Your task to perform on an android device: open chrome privacy settings Image 0: 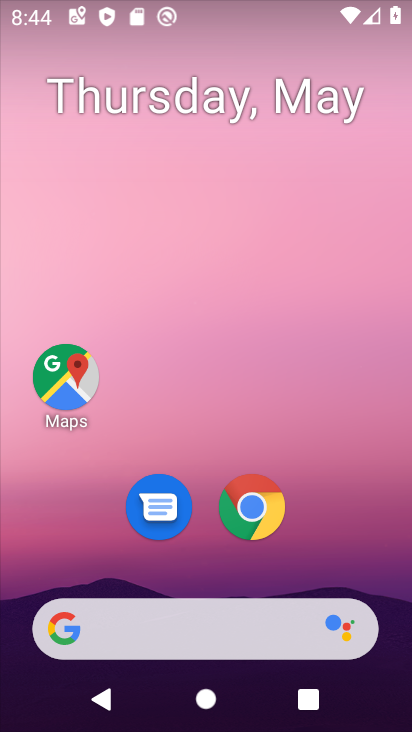
Step 0: drag from (261, 661) to (305, 343)
Your task to perform on an android device: open chrome privacy settings Image 1: 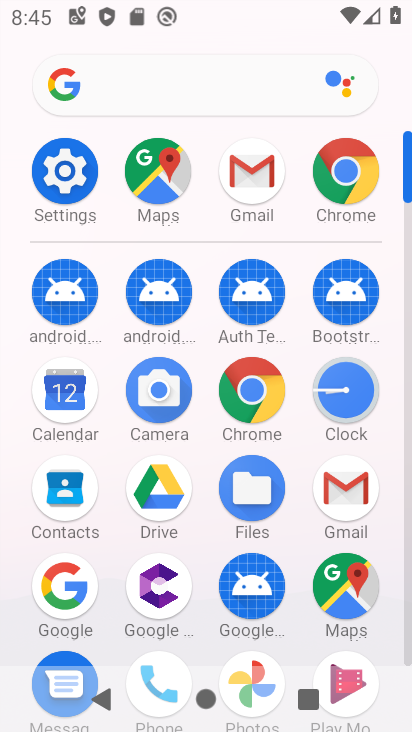
Step 1: click (337, 174)
Your task to perform on an android device: open chrome privacy settings Image 2: 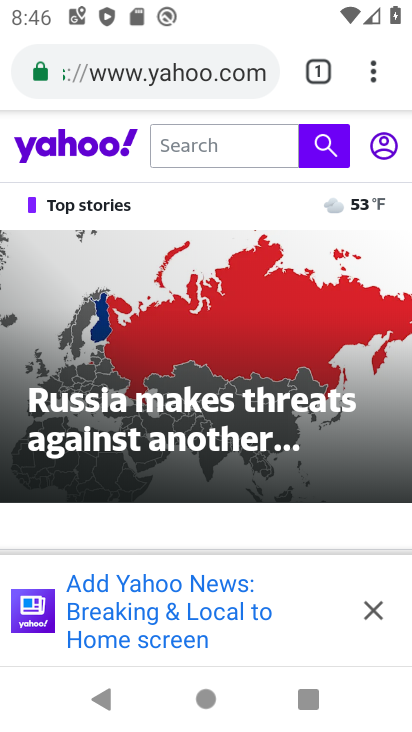
Step 2: click (362, 78)
Your task to perform on an android device: open chrome privacy settings Image 3: 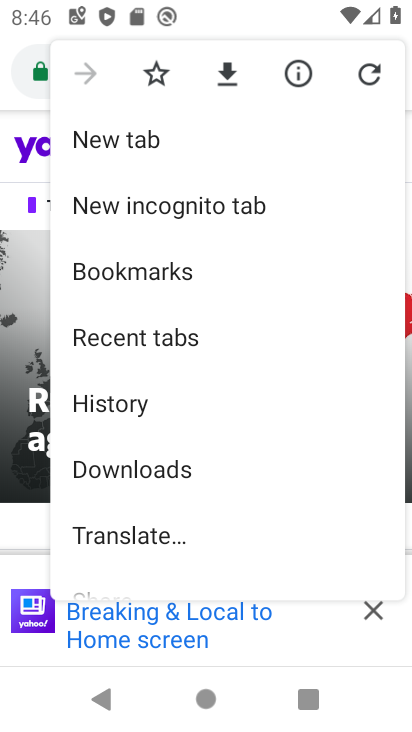
Step 3: drag from (145, 534) to (263, 314)
Your task to perform on an android device: open chrome privacy settings Image 4: 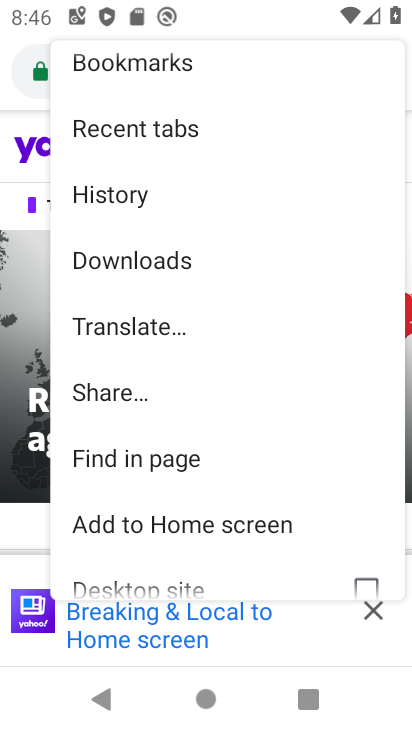
Step 4: drag from (124, 540) to (252, 356)
Your task to perform on an android device: open chrome privacy settings Image 5: 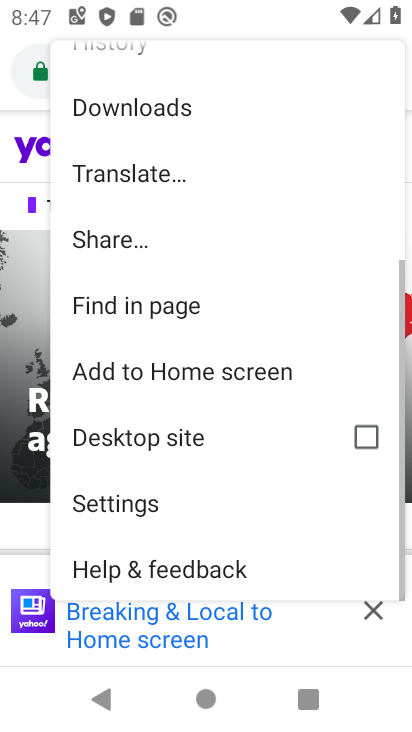
Step 5: click (171, 489)
Your task to perform on an android device: open chrome privacy settings Image 6: 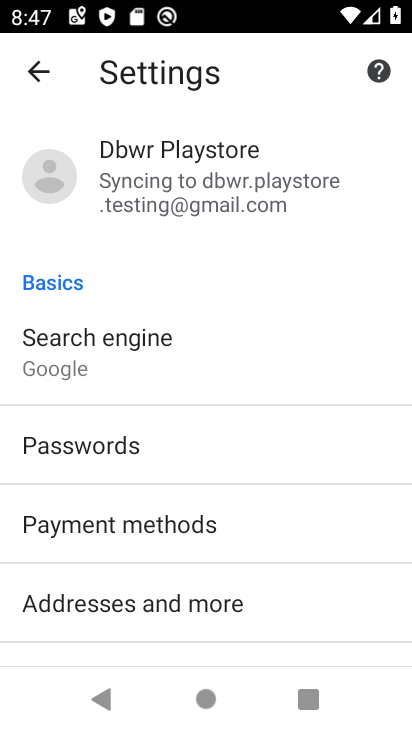
Step 6: drag from (190, 520) to (204, 286)
Your task to perform on an android device: open chrome privacy settings Image 7: 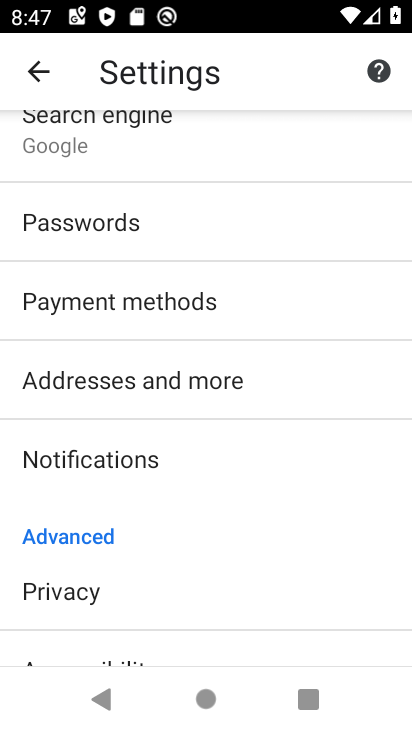
Step 7: click (95, 585)
Your task to perform on an android device: open chrome privacy settings Image 8: 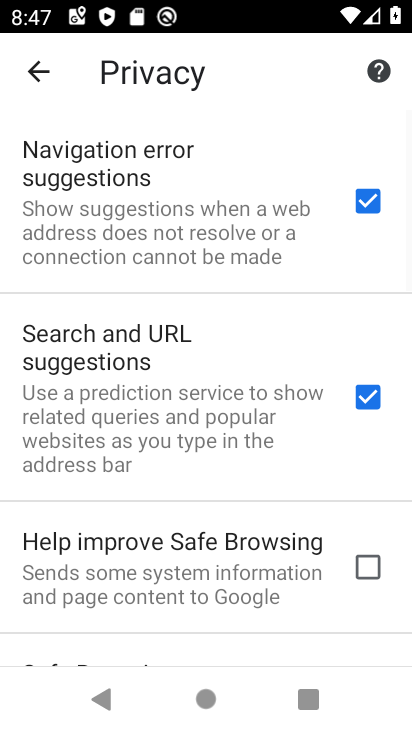
Step 8: task complete